Your task to perform on an android device: open app "Pluto TV - Live TV and Movies" Image 0: 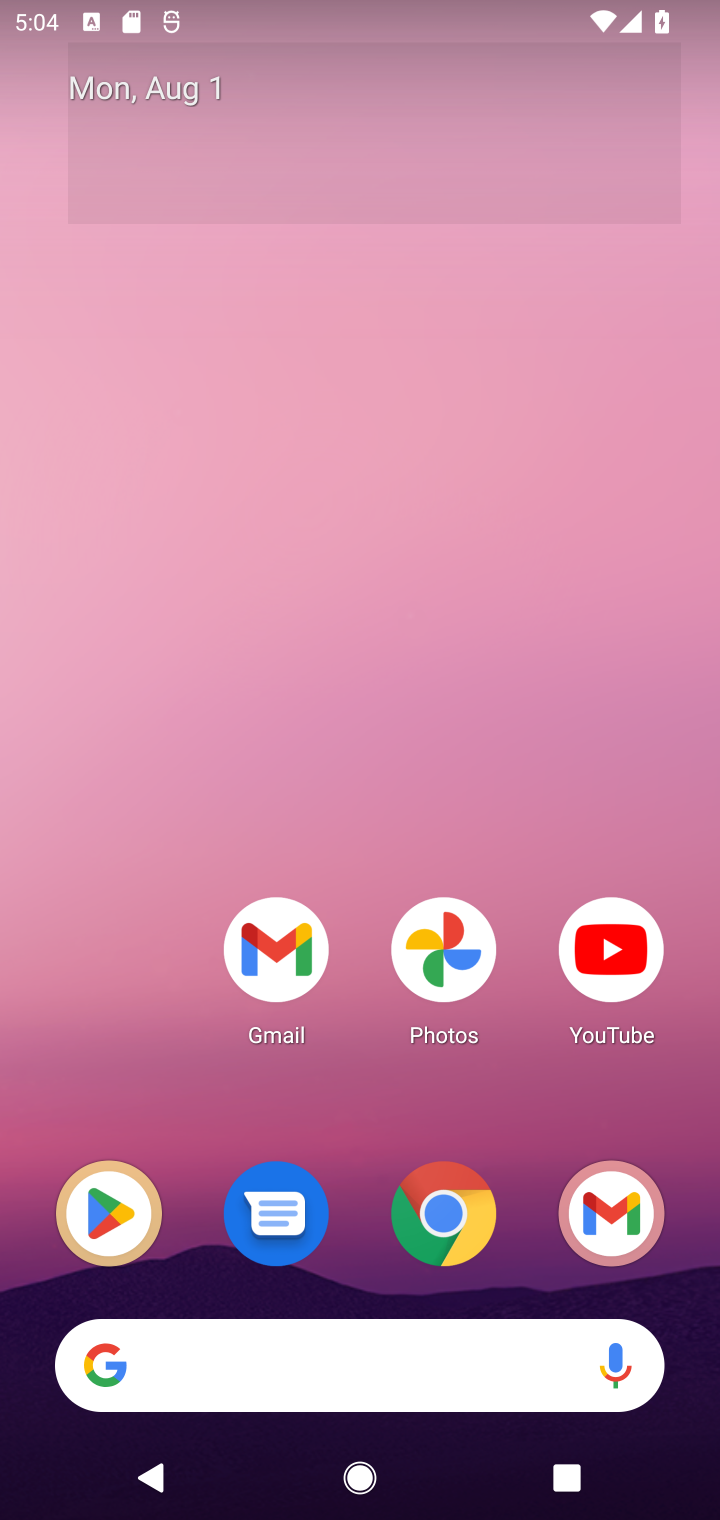
Step 0: click (592, 961)
Your task to perform on an android device: open app "Pluto TV - Live TV and Movies" Image 1: 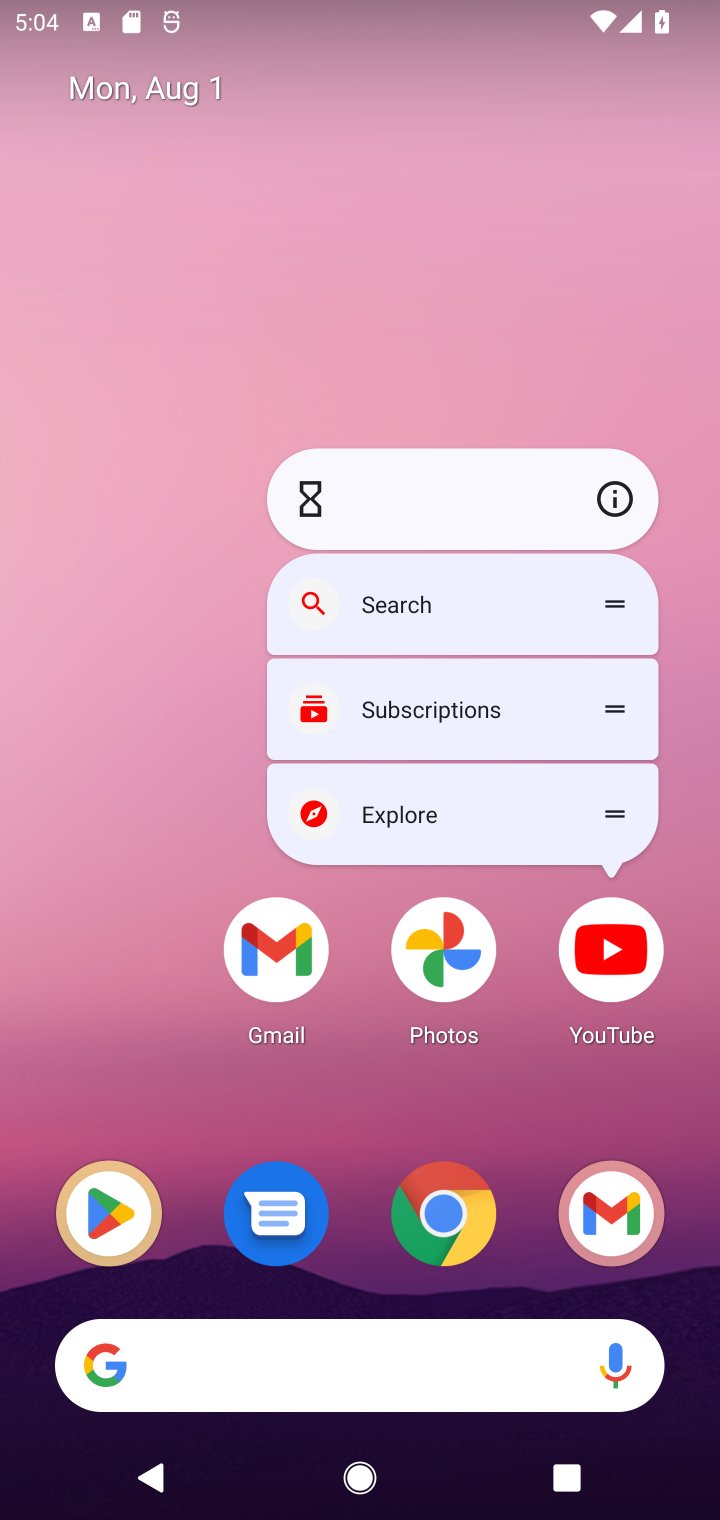
Step 1: click (669, 1090)
Your task to perform on an android device: open app "Pluto TV - Live TV and Movies" Image 2: 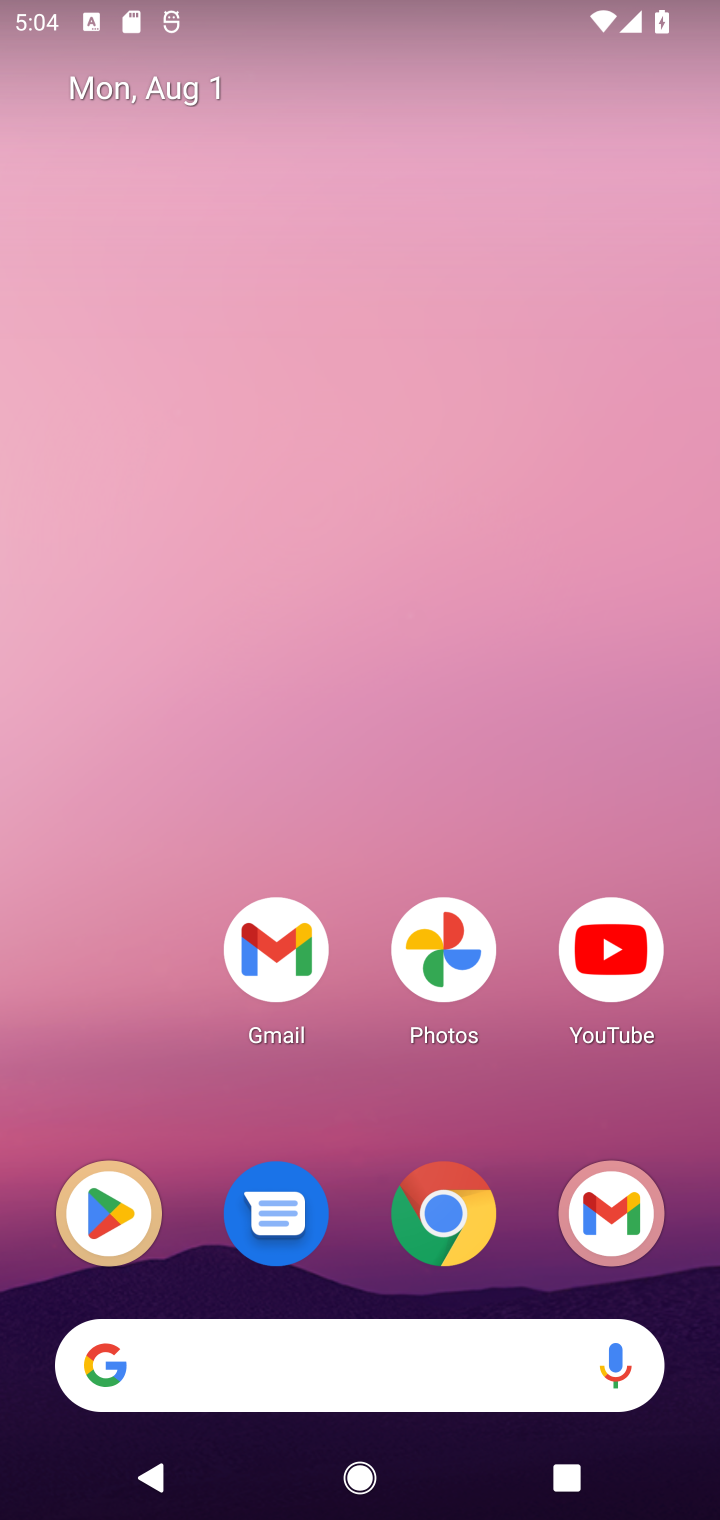
Step 2: drag from (374, 1118) to (402, 21)
Your task to perform on an android device: open app "Pluto TV - Live TV and Movies" Image 3: 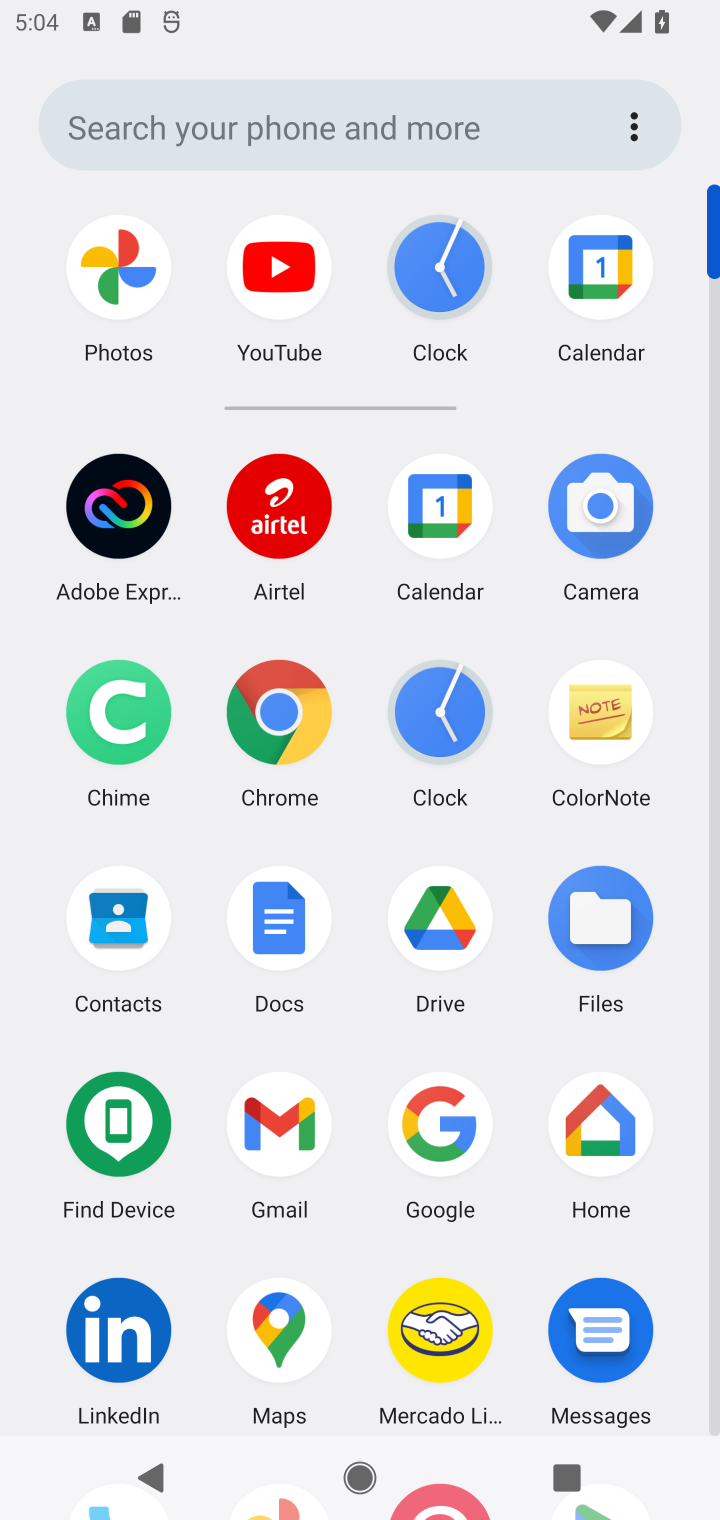
Step 3: drag from (354, 1227) to (355, 272)
Your task to perform on an android device: open app "Pluto TV - Live TV and Movies" Image 4: 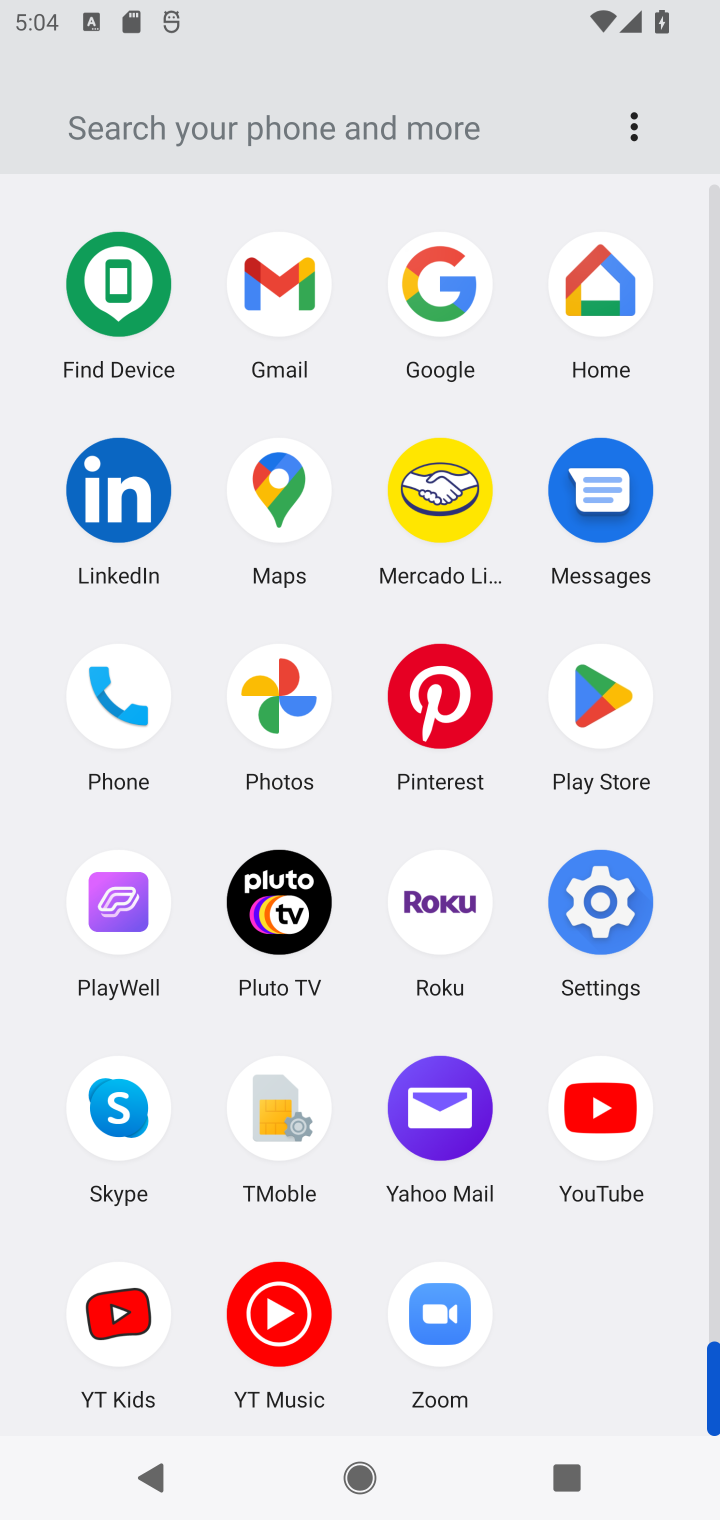
Step 4: click (596, 722)
Your task to perform on an android device: open app "Pluto TV - Live TV and Movies" Image 5: 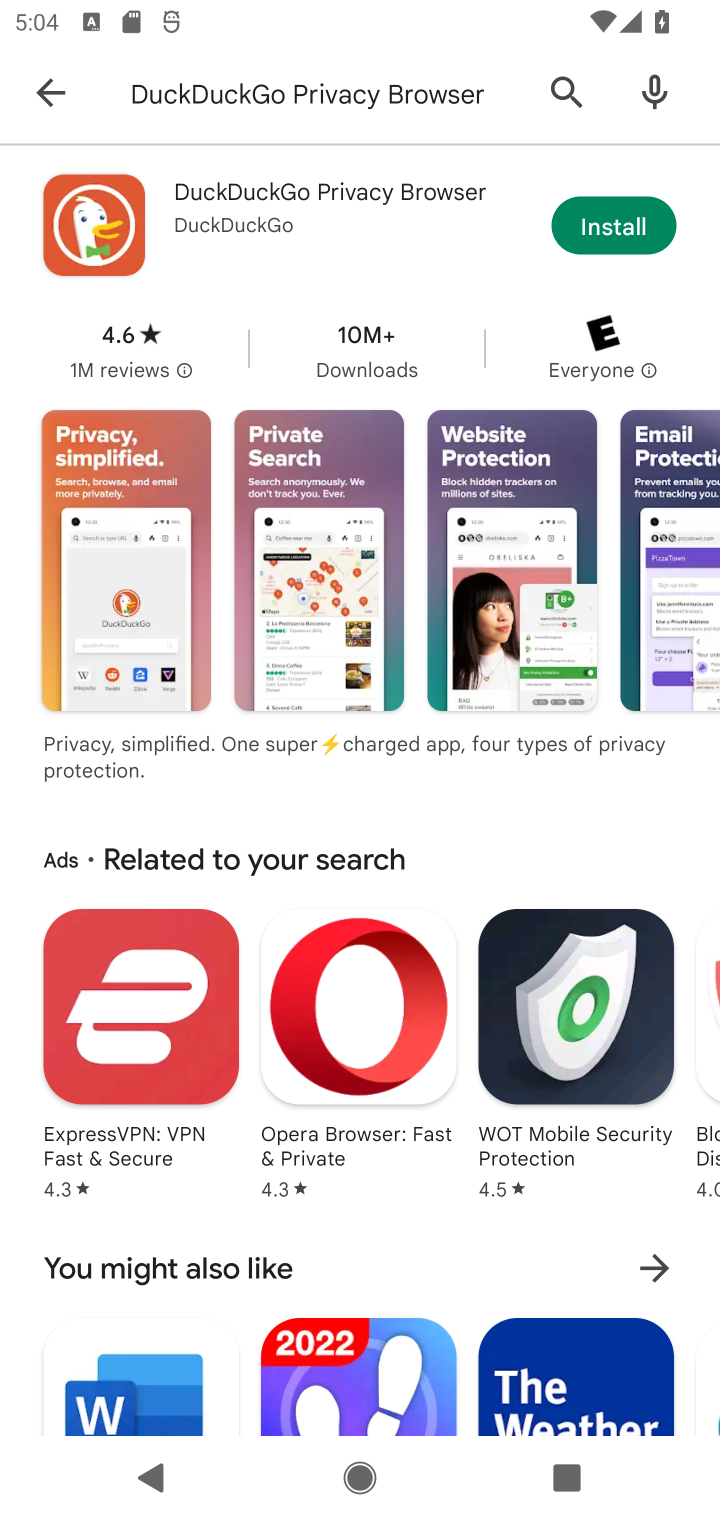
Step 5: click (349, 108)
Your task to perform on an android device: open app "Pluto TV - Live TV and Movies" Image 6: 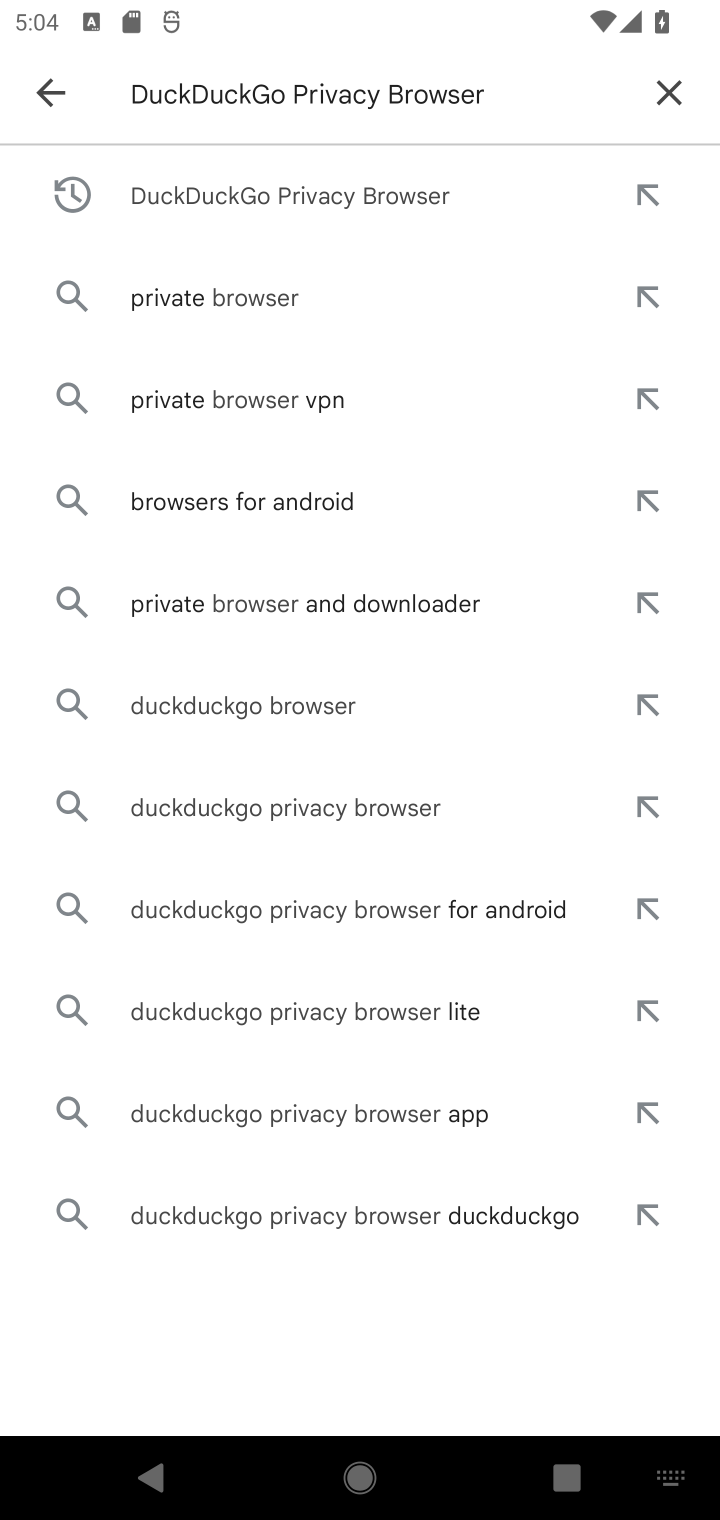
Step 6: click (665, 89)
Your task to perform on an android device: open app "Pluto TV - Live TV and Movies" Image 7: 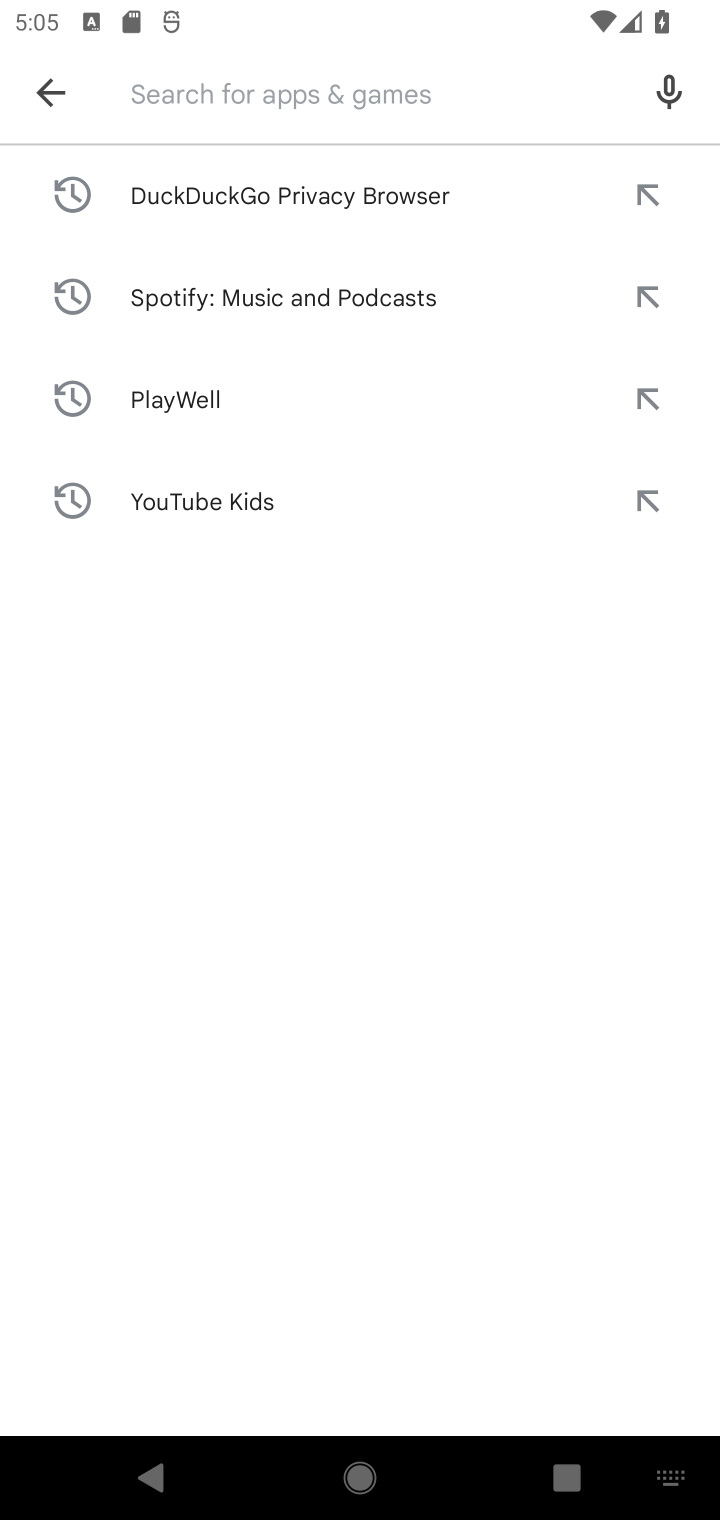
Step 7: type "Pluto TV - Live TV and Movies"
Your task to perform on an android device: open app "Pluto TV - Live TV and Movies" Image 8: 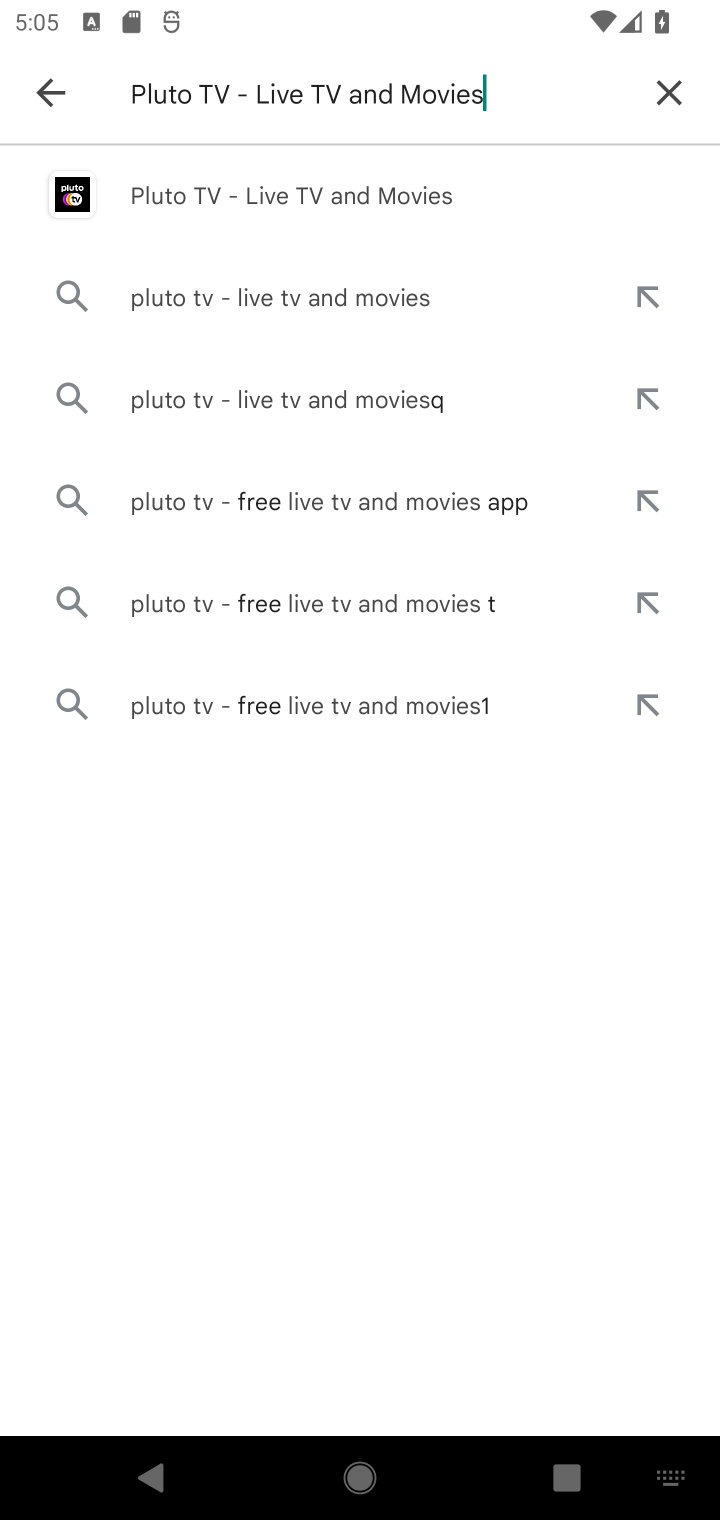
Step 8: press enter
Your task to perform on an android device: open app "Pluto TV - Live TV and Movies" Image 9: 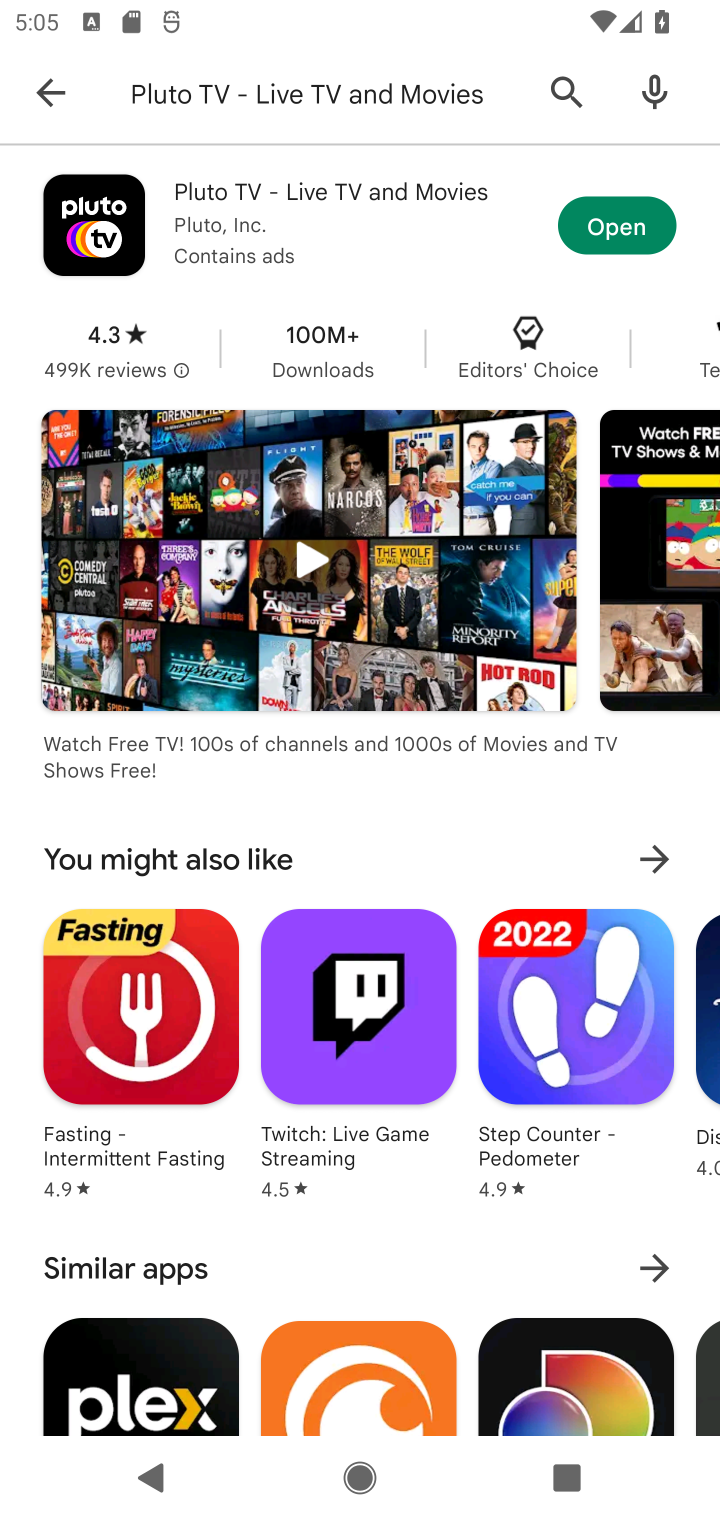
Step 9: click (634, 233)
Your task to perform on an android device: open app "Pluto TV - Live TV and Movies" Image 10: 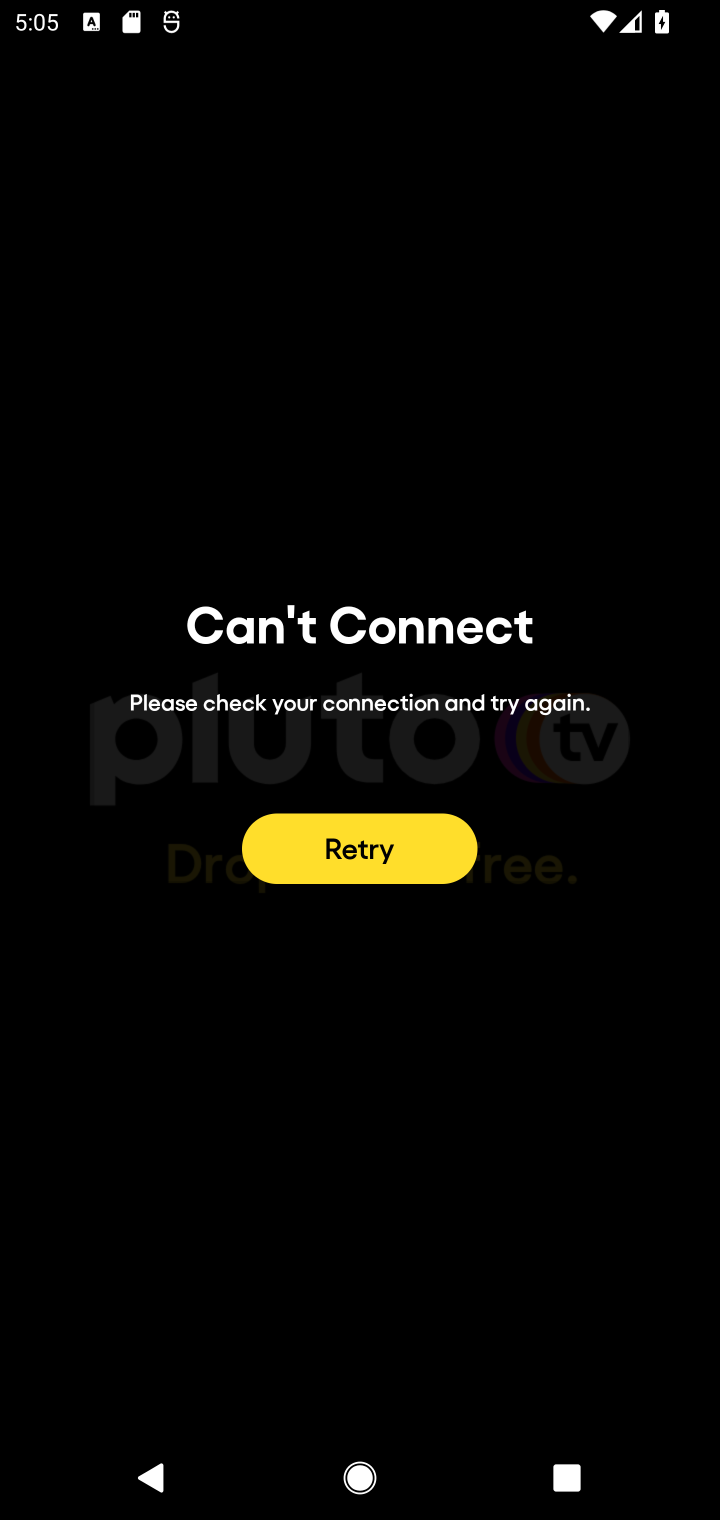
Step 10: task complete